Your task to perform on an android device: toggle wifi Image 0: 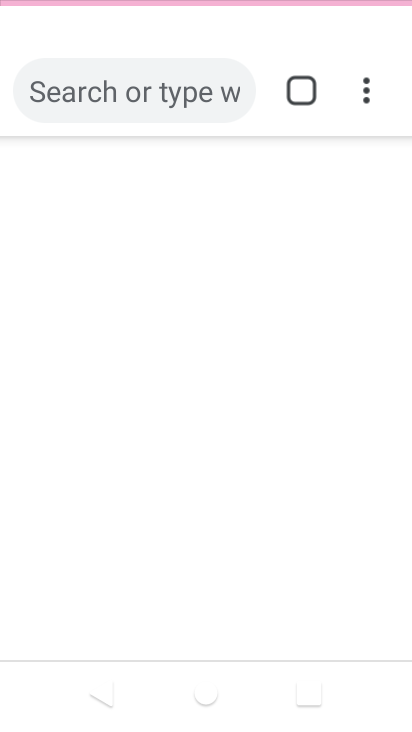
Step 0: click (395, 162)
Your task to perform on an android device: toggle wifi Image 1: 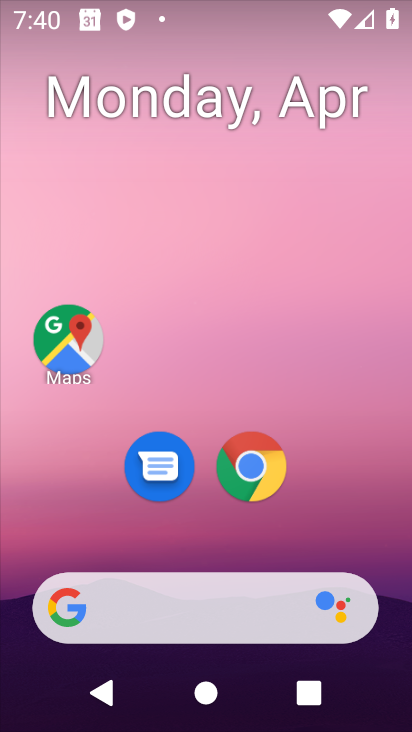
Step 1: drag from (213, 545) to (269, 2)
Your task to perform on an android device: toggle wifi Image 2: 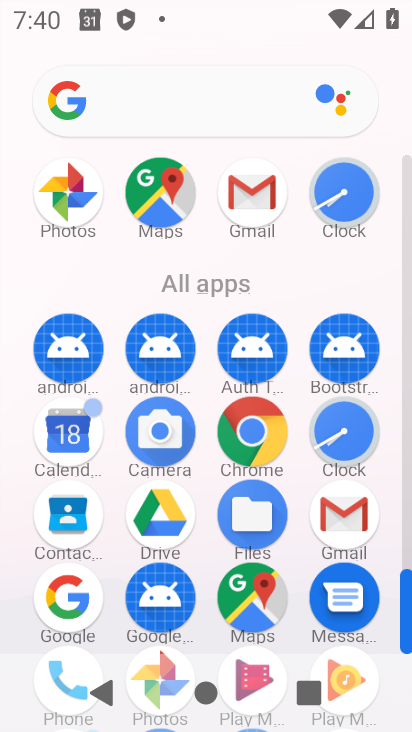
Step 2: drag from (204, 639) to (207, 159)
Your task to perform on an android device: toggle wifi Image 3: 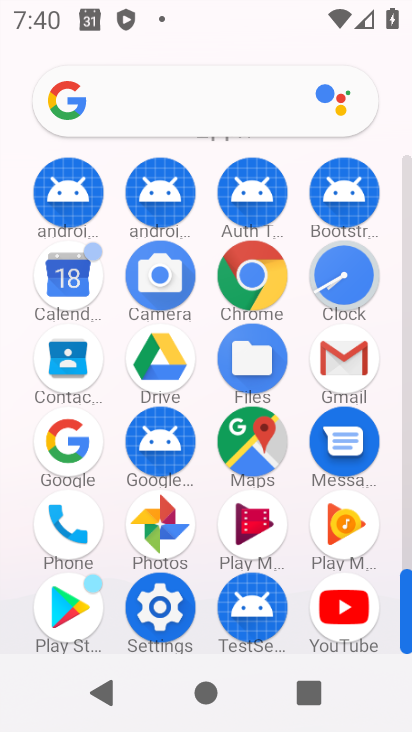
Step 3: click (177, 610)
Your task to perform on an android device: toggle wifi Image 4: 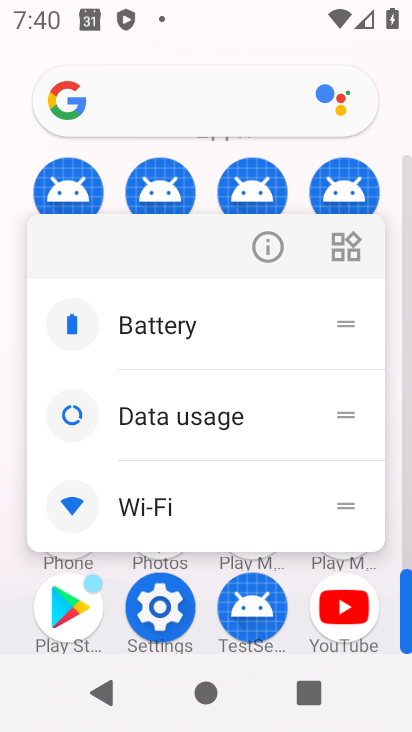
Step 4: click (133, 506)
Your task to perform on an android device: toggle wifi Image 5: 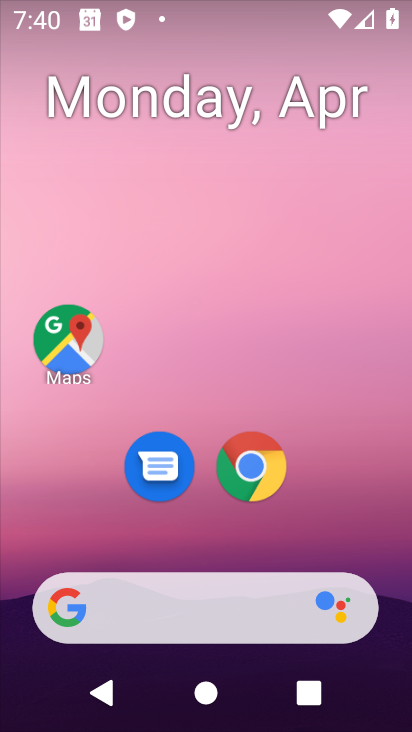
Step 5: drag from (204, 539) to (276, 197)
Your task to perform on an android device: toggle wifi Image 6: 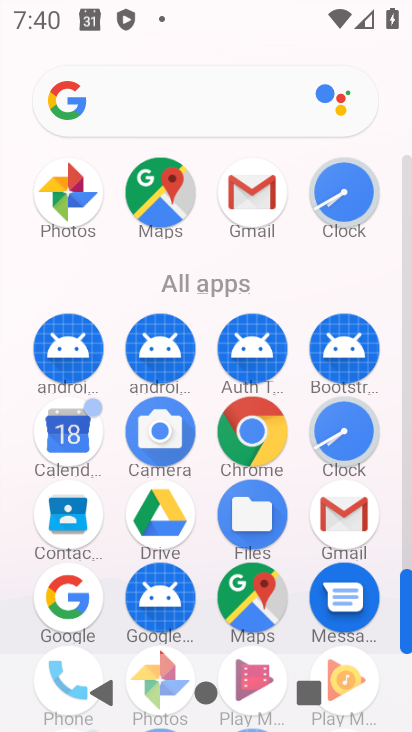
Step 6: drag from (198, 625) to (197, 164)
Your task to perform on an android device: toggle wifi Image 7: 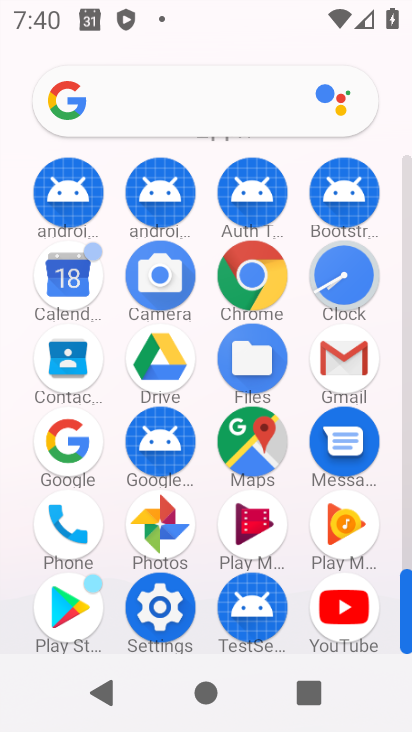
Step 7: click (166, 614)
Your task to perform on an android device: toggle wifi Image 8: 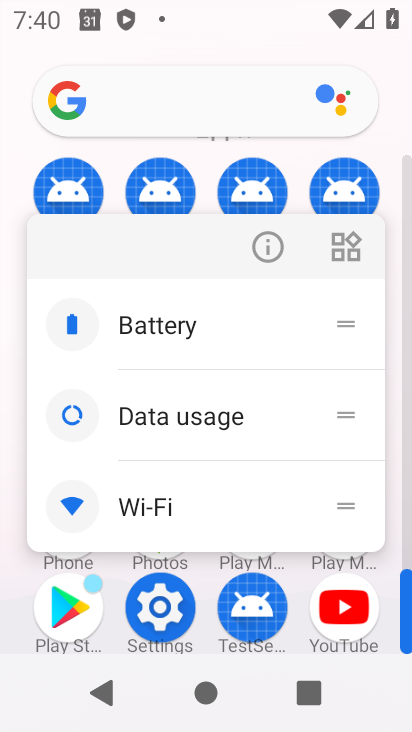
Step 8: click (262, 256)
Your task to perform on an android device: toggle wifi Image 9: 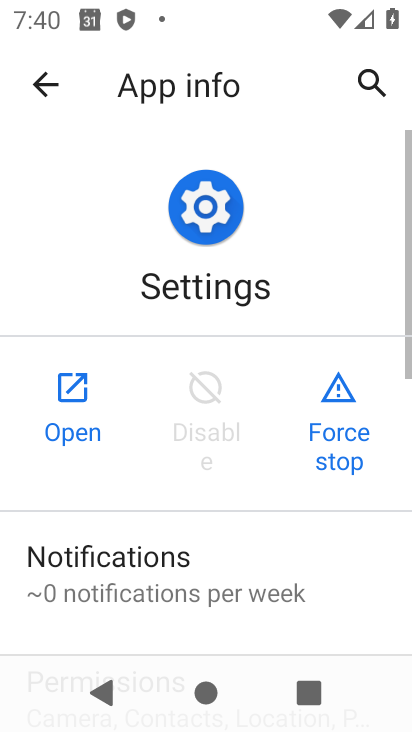
Step 9: click (84, 418)
Your task to perform on an android device: toggle wifi Image 10: 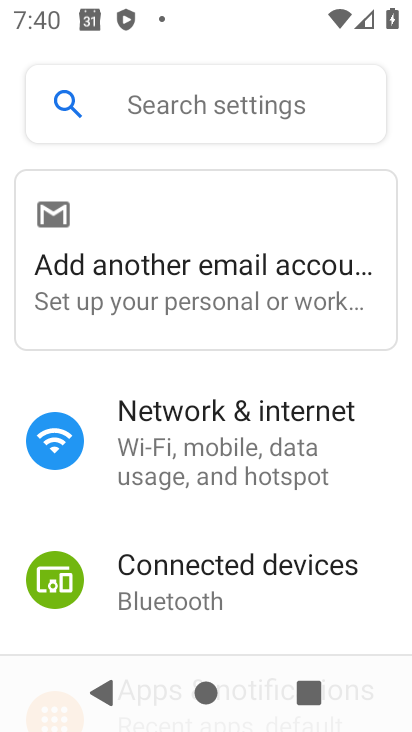
Step 10: drag from (191, 542) to (324, 155)
Your task to perform on an android device: toggle wifi Image 11: 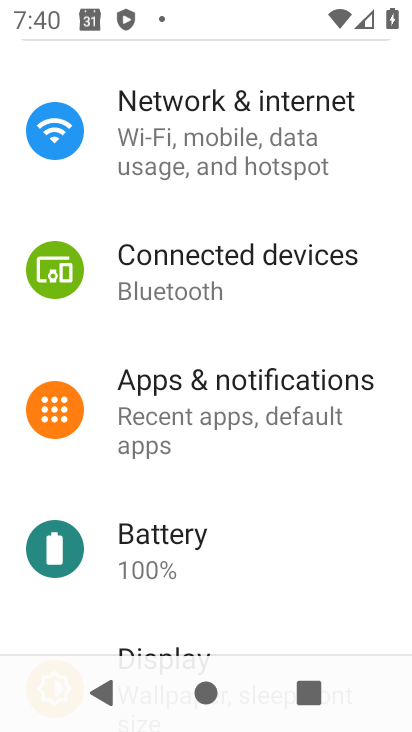
Step 11: drag from (320, 593) to (316, 161)
Your task to perform on an android device: toggle wifi Image 12: 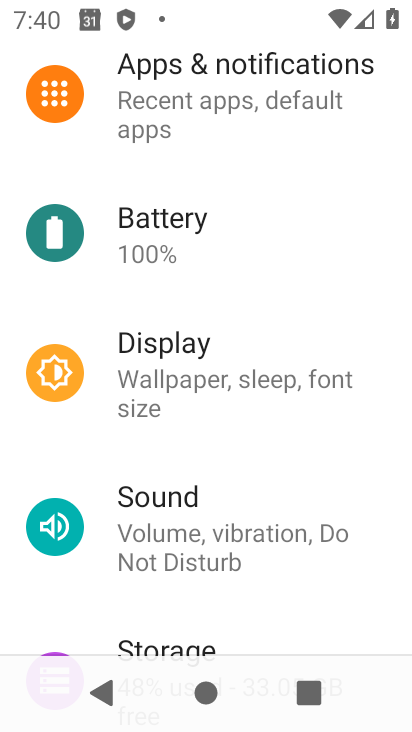
Step 12: drag from (223, 352) to (286, 726)
Your task to perform on an android device: toggle wifi Image 13: 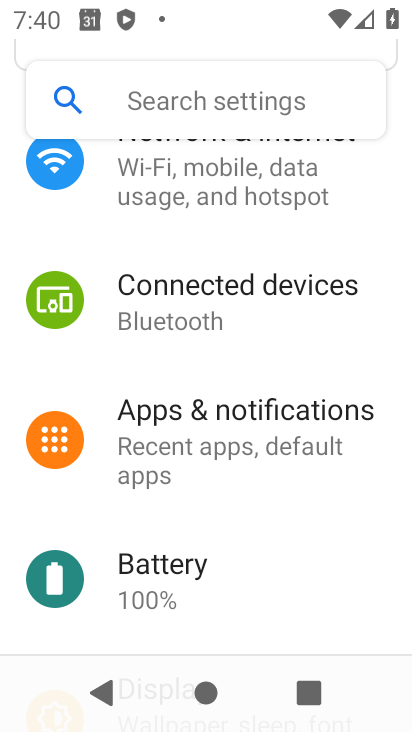
Step 13: drag from (217, 229) to (293, 620)
Your task to perform on an android device: toggle wifi Image 14: 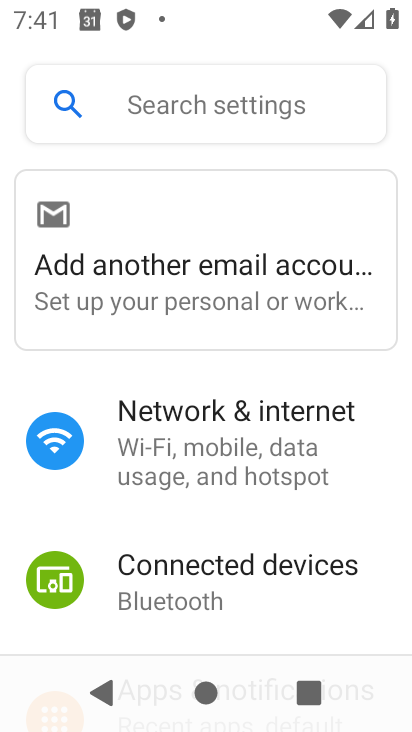
Step 14: click (184, 417)
Your task to perform on an android device: toggle wifi Image 15: 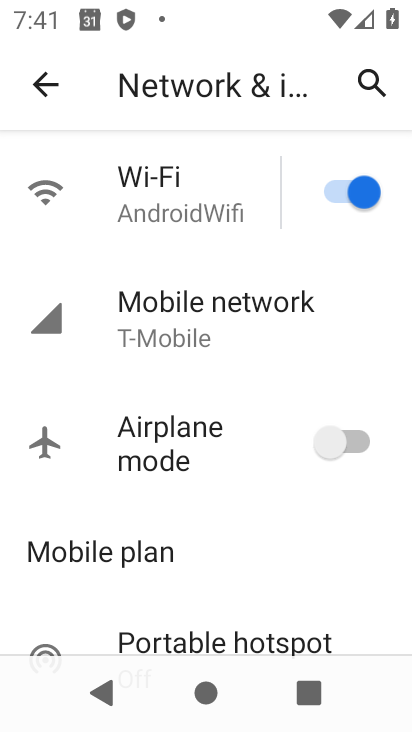
Step 15: drag from (248, 573) to (251, 333)
Your task to perform on an android device: toggle wifi Image 16: 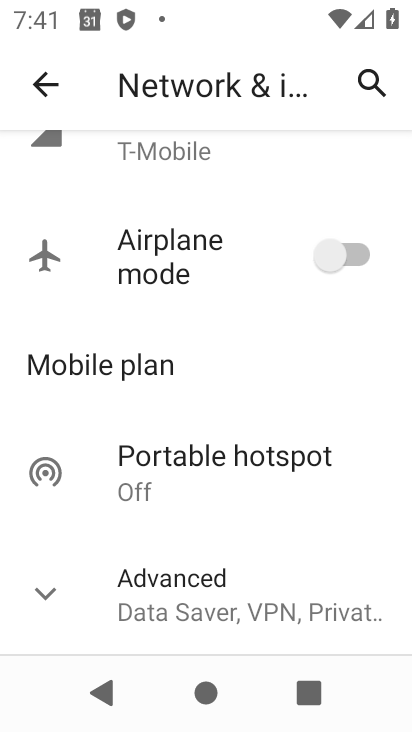
Step 16: drag from (232, 301) to (389, 699)
Your task to perform on an android device: toggle wifi Image 17: 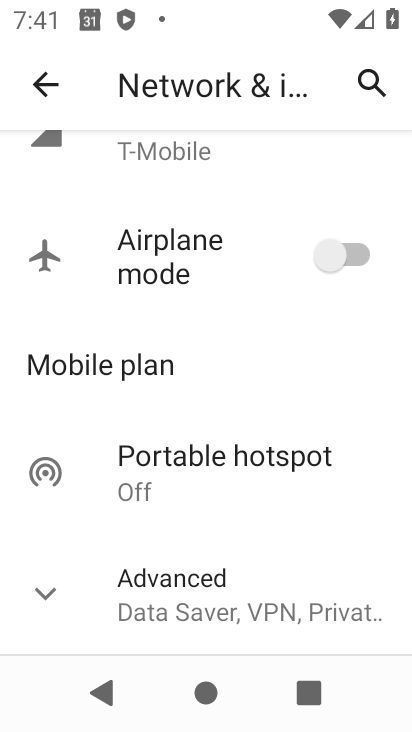
Step 17: drag from (236, 226) to (371, 711)
Your task to perform on an android device: toggle wifi Image 18: 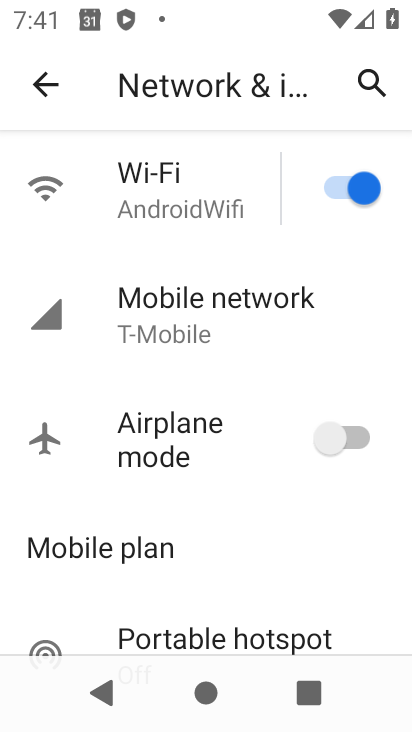
Step 18: click (350, 182)
Your task to perform on an android device: toggle wifi Image 19: 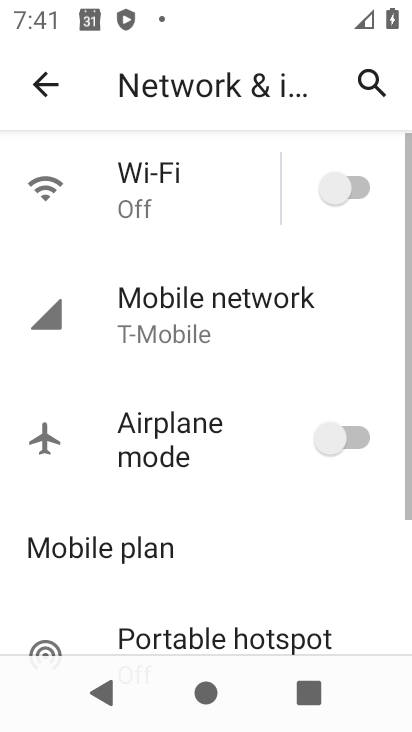
Step 19: task complete